Your task to perform on an android device: Go to settings Image 0: 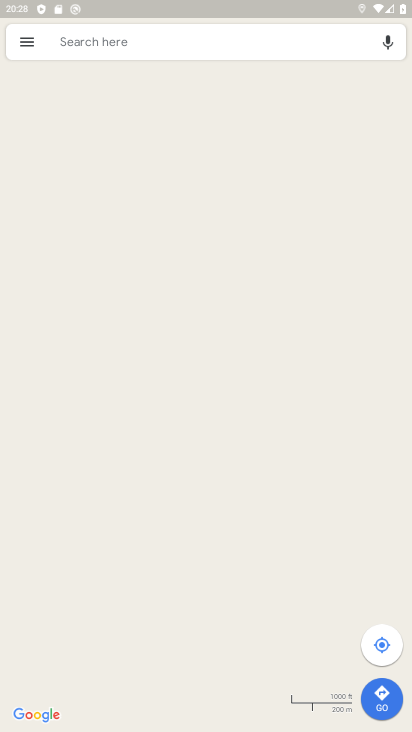
Step 0: press home button
Your task to perform on an android device: Go to settings Image 1: 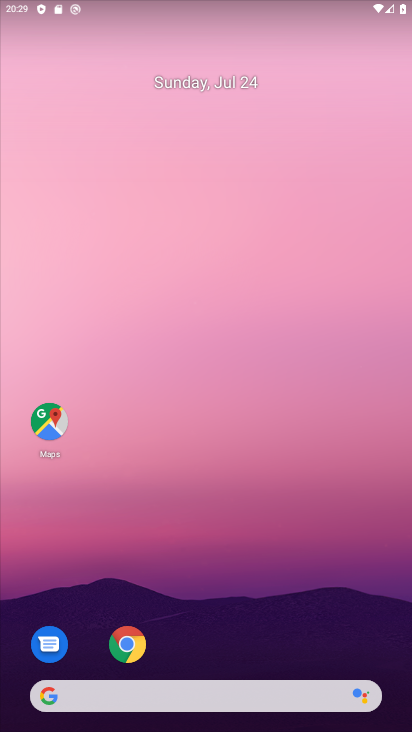
Step 1: drag from (371, 646) to (348, 180)
Your task to perform on an android device: Go to settings Image 2: 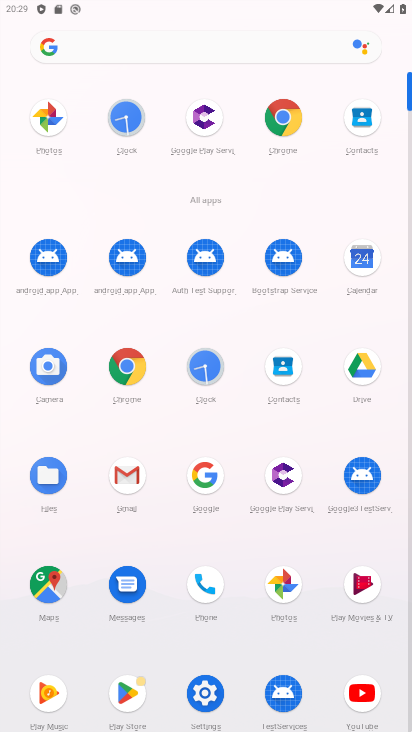
Step 2: click (205, 694)
Your task to perform on an android device: Go to settings Image 3: 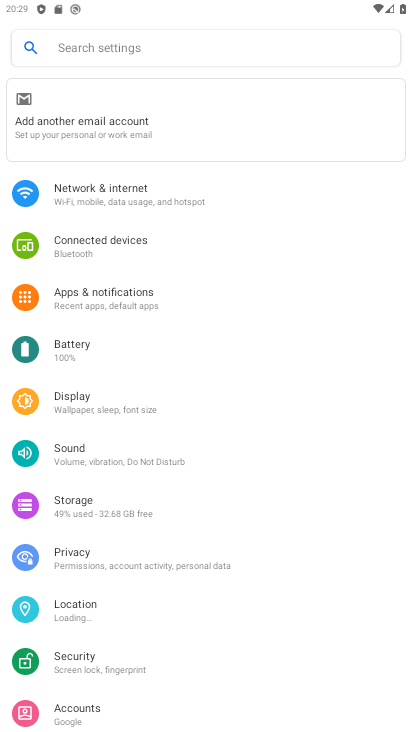
Step 3: task complete